Your task to perform on an android device: Show me popular games on the Play Store Image 0: 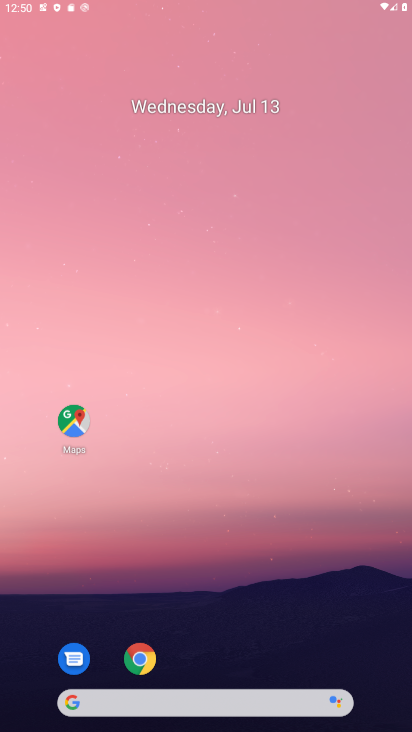
Step 0: click (227, 244)
Your task to perform on an android device: Show me popular games on the Play Store Image 1: 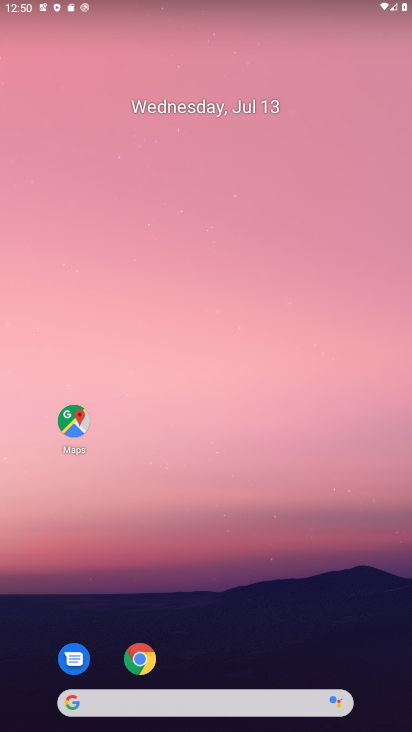
Step 1: drag from (192, 663) to (196, 110)
Your task to perform on an android device: Show me popular games on the Play Store Image 2: 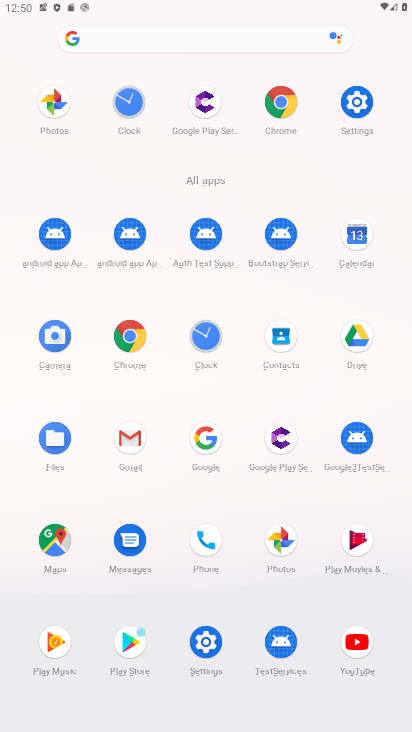
Step 2: click (132, 629)
Your task to perform on an android device: Show me popular games on the Play Store Image 3: 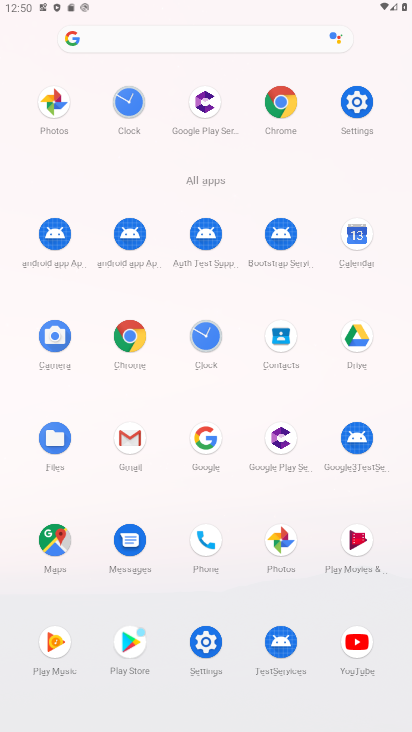
Step 3: click (132, 629)
Your task to perform on an android device: Show me popular games on the Play Store Image 4: 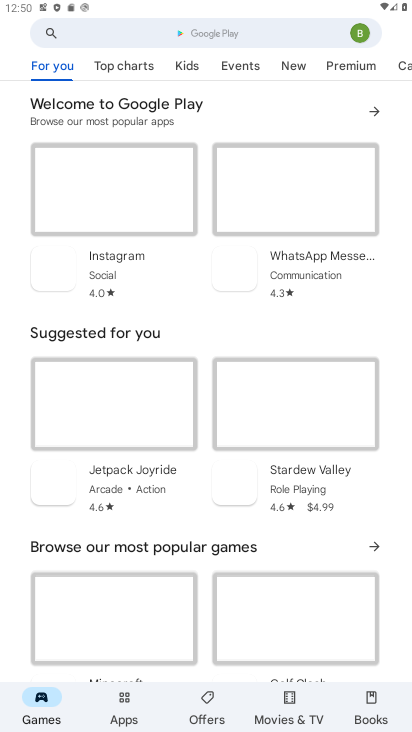
Step 4: drag from (261, 487) to (278, 284)
Your task to perform on an android device: Show me popular games on the Play Store Image 5: 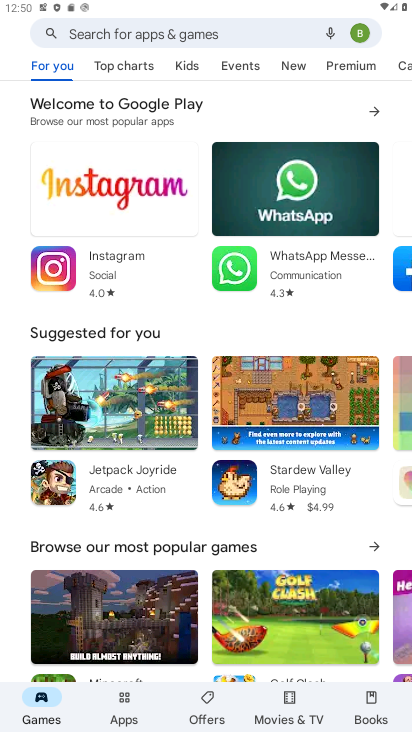
Step 5: drag from (302, 522) to (364, 220)
Your task to perform on an android device: Show me popular games on the Play Store Image 6: 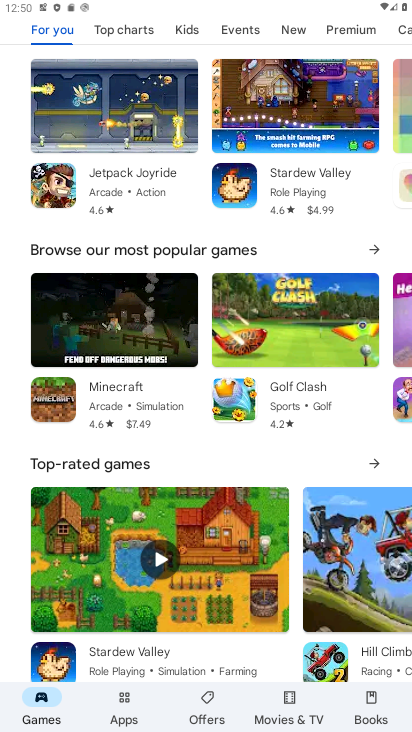
Step 6: click (376, 251)
Your task to perform on an android device: Show me popular games on the Play Store Image 7: 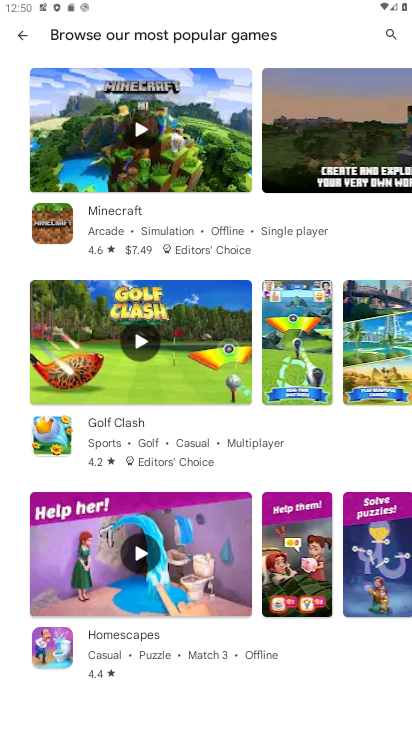
Step 7: task complete